Your task to perform on an android device: turn on location history Image 0: 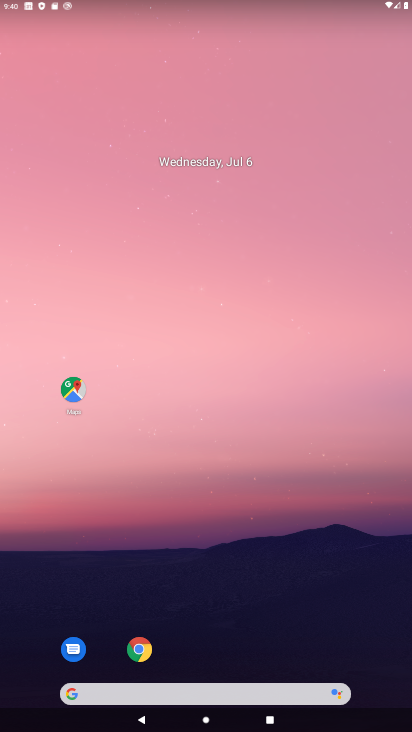
Step 0: drag from (209, 696) to (187, 14)
Your task to perform on an android device: turn on location history Image 1: 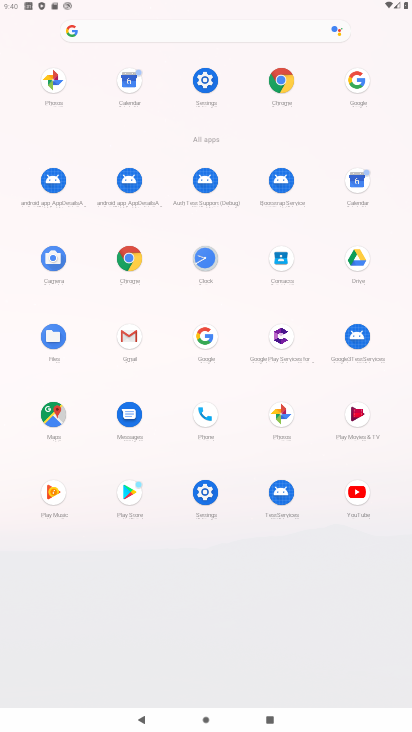
Step 1: click (217, 87)
Your task to perform on an android device: turn on location history Image 2: 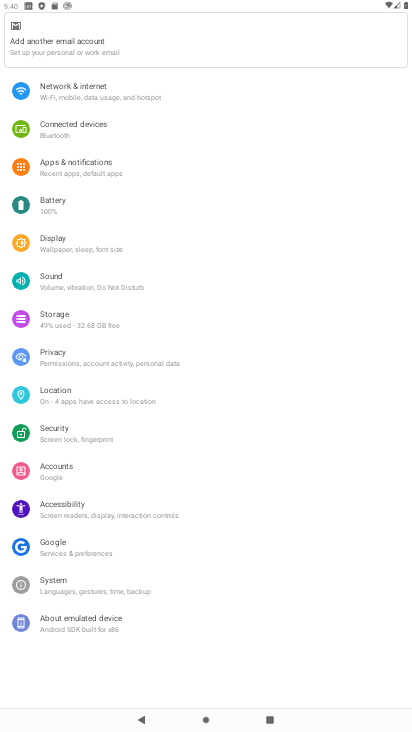
Step 2: click (54, 395)
Your task to perform on an android device: turn on location history Image 3: 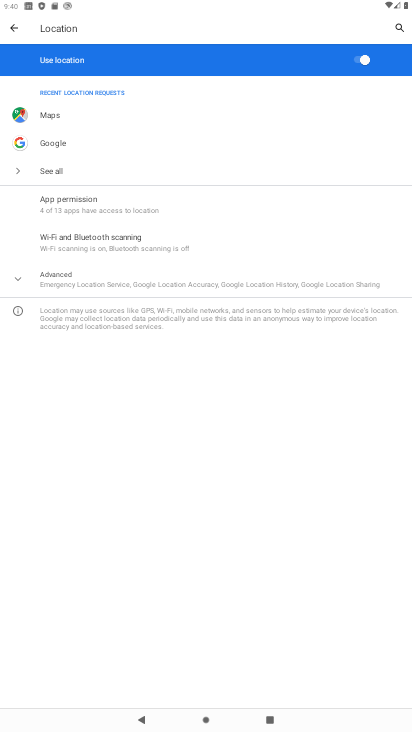
Step 3: click (69, 286)
Your task to perform on an android device: turn on location history Image 4: 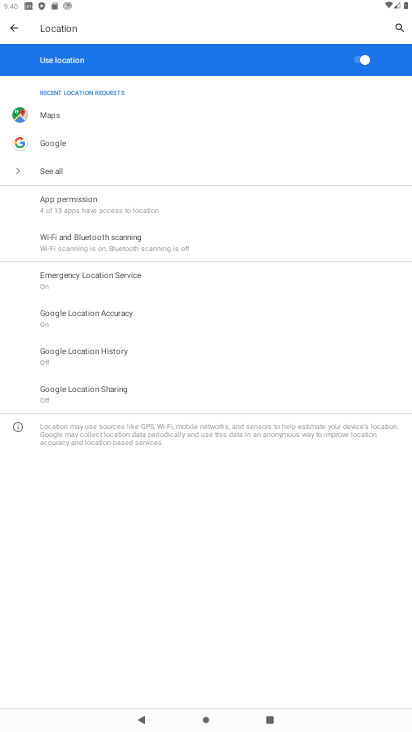
Step 4: click (127, 351)
Your task to perform on an android device: turn on location history Image 5: 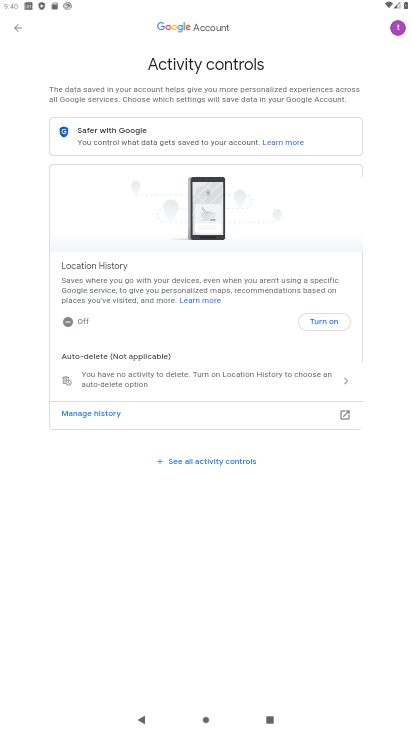
Step 5: click (329, 330)
Your task to perform on an android device: turn on location history Image 6: 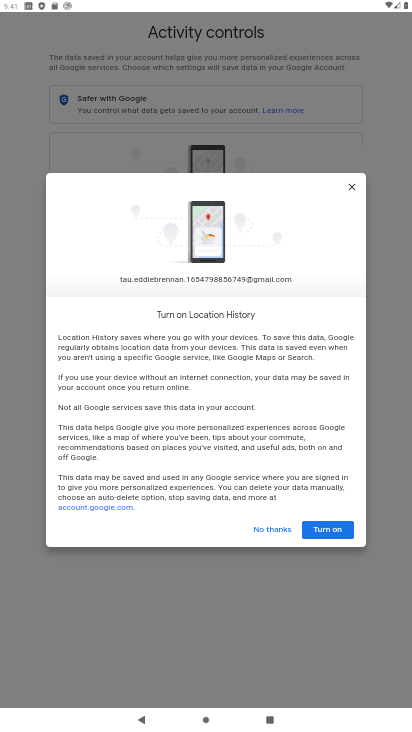
Step 6: click (335, 534)
Your task to perform on an android device: turn on location history Image 7: 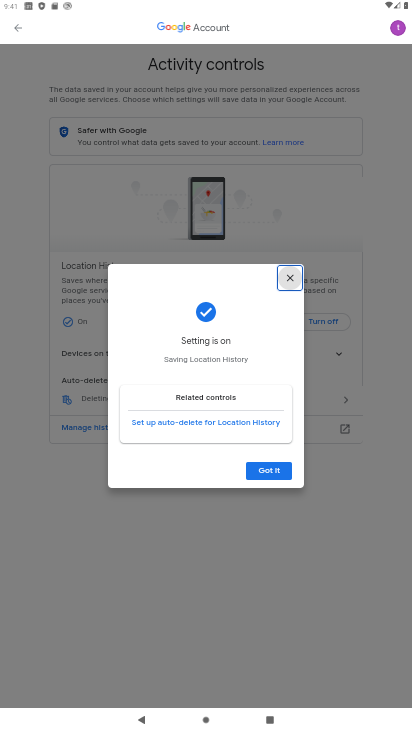
Step 7: click (250, 470)
Your task to perform on an android device: turn on location history Image 8: 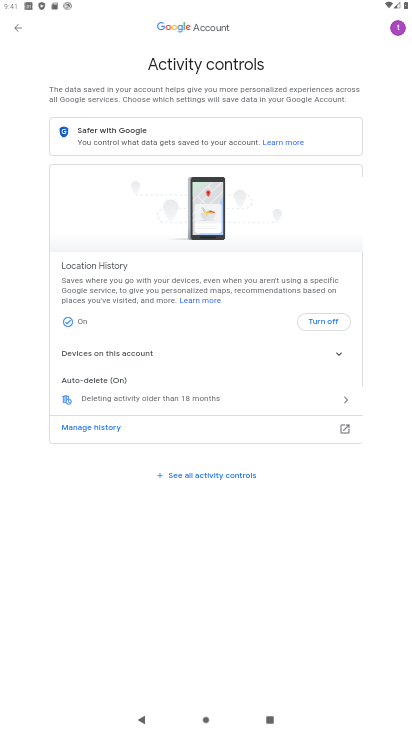
Step 8: task complete